Your task to perform on an android device: Go to wifi settings Image 0: 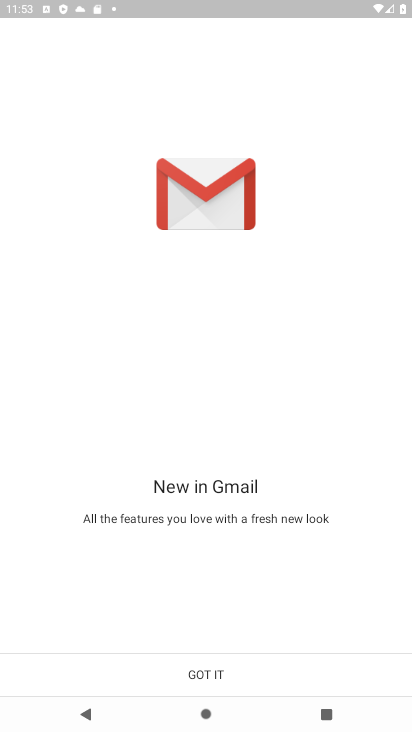
Step 0: click (226, 671)
Your task to perform on an android device: Go to wifi settings Image 1: 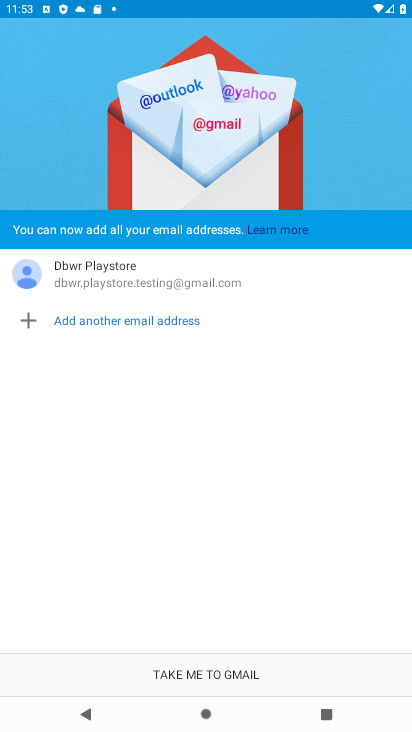
Step 1: click (207, 664)
Your task to perform on an android device: Go to wifi settings Image 2: 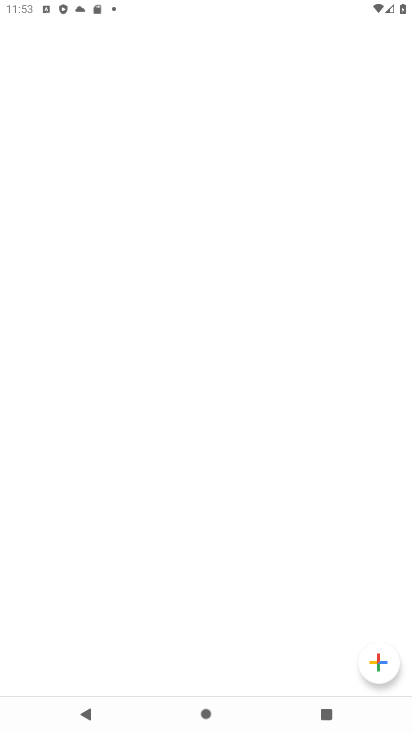
Step 2: task complete